Your task to perform on an android device: open sync settings in chrome Image 0: 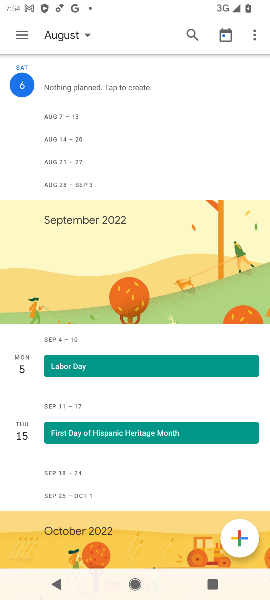
Step 0: press home button
Your task to perform on an android device: open sync settings in chrome Image 1: 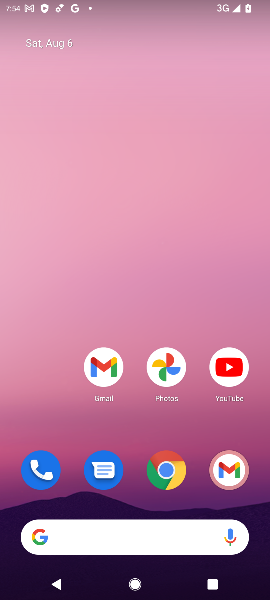
Step 1: click (166, 464)
Your task to perform on an android device: open sync settings in chrome Image 2: 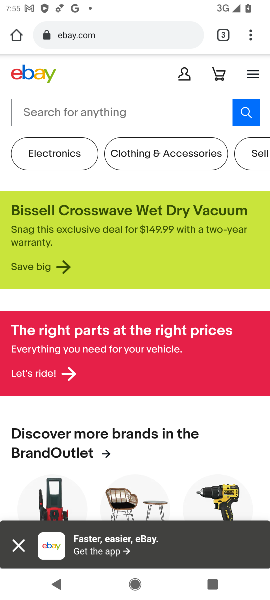
Step 2: click (249, 34)
Your task to perform on an android device: open sync settings in chrome Image 3: 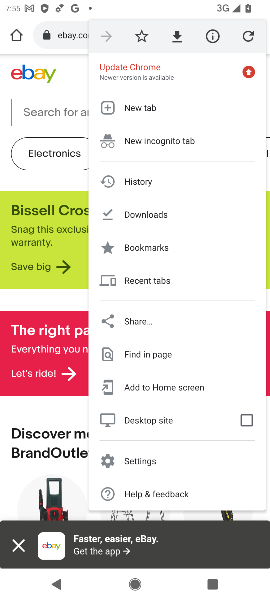
Step 3: click (141, 454)
Your task to perform on an android device: open sync settings in chrome Image 4: 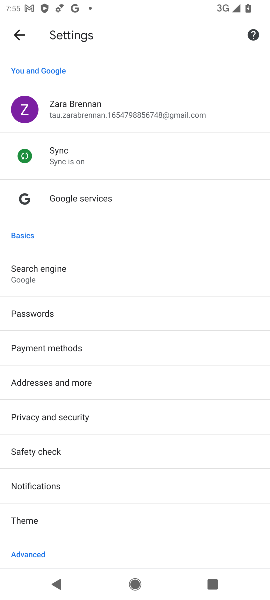
Step 4: click (95, 153)
Your task to perform on an android device: open sync settings in chrome Image 5: 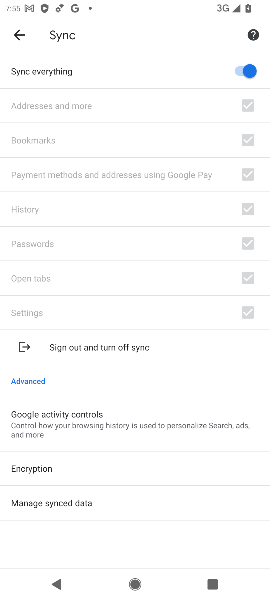
Step 5: task complete